Your task to perform on an android device: Open Google Chrome Image 0: 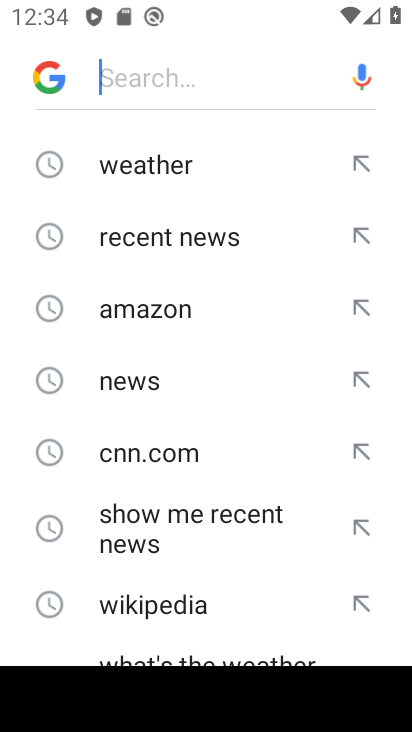
Step 0: press home button
Your task to perform on an android device: Open Google Chrome Image 1: 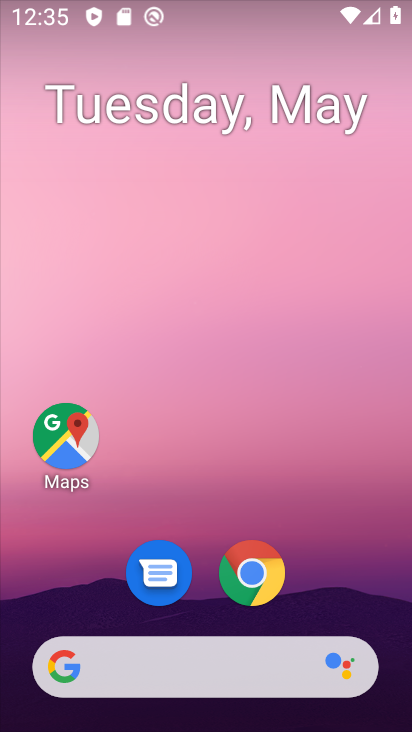
Step 1: drag from (333, 597) to (236, 106)
Your task to perform on an android device: Open Google Chrome Image 2: 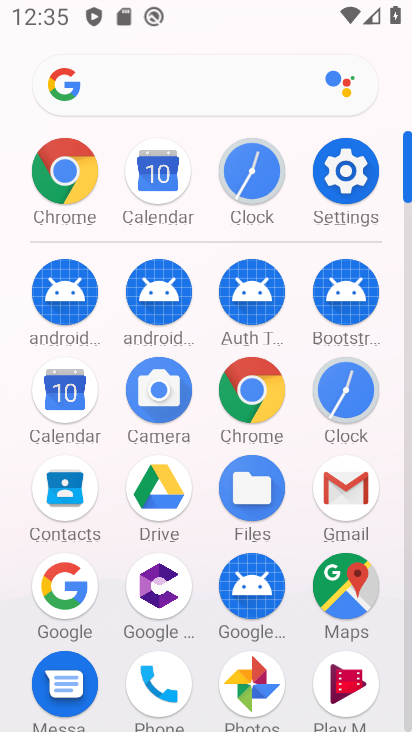
Step 2: click (61, 164)
Your task to perform on an android device: Open Google Chrome Image 3: 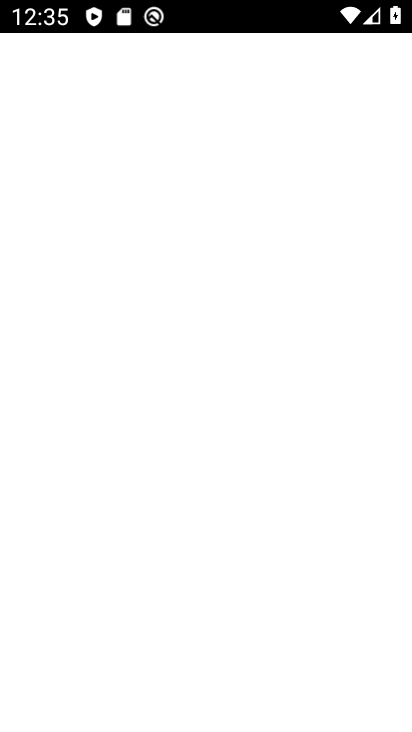
Step 3: click (61, 163)
Your task to perform on an android device: Open Google Chrome Image 4: 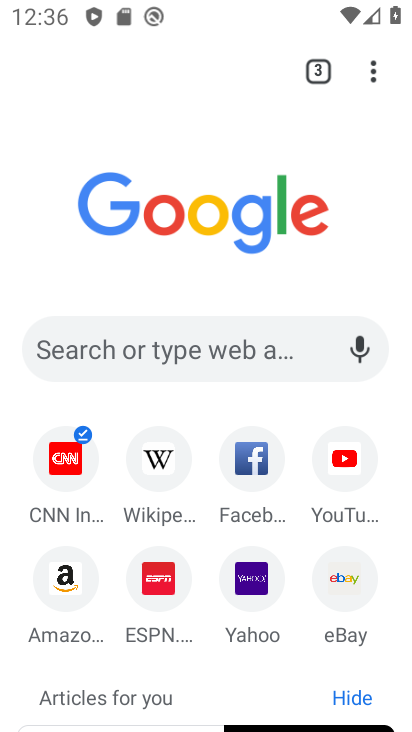
Step 4: task complete